Your task to perform on an android device: Search for "usb-c" on ebay.com, select the first entry, and add it to the cart. Image 0: 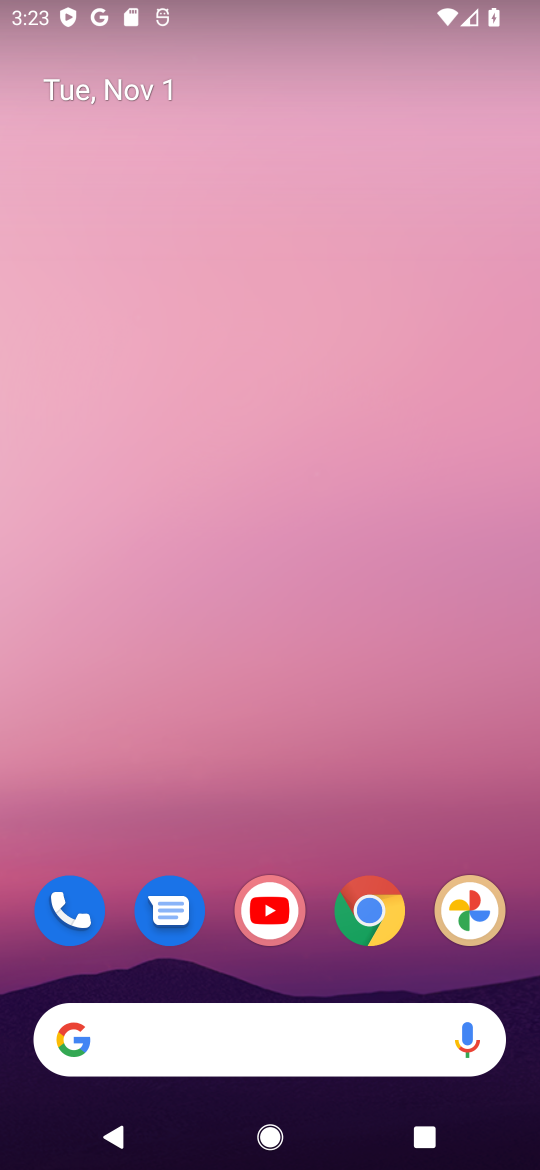
Step 0: click (263, 1051)
Your task to perform on an android device: Search for "usb-c" on ebay.com, select the first entry, and add it to the cart. Image 1: 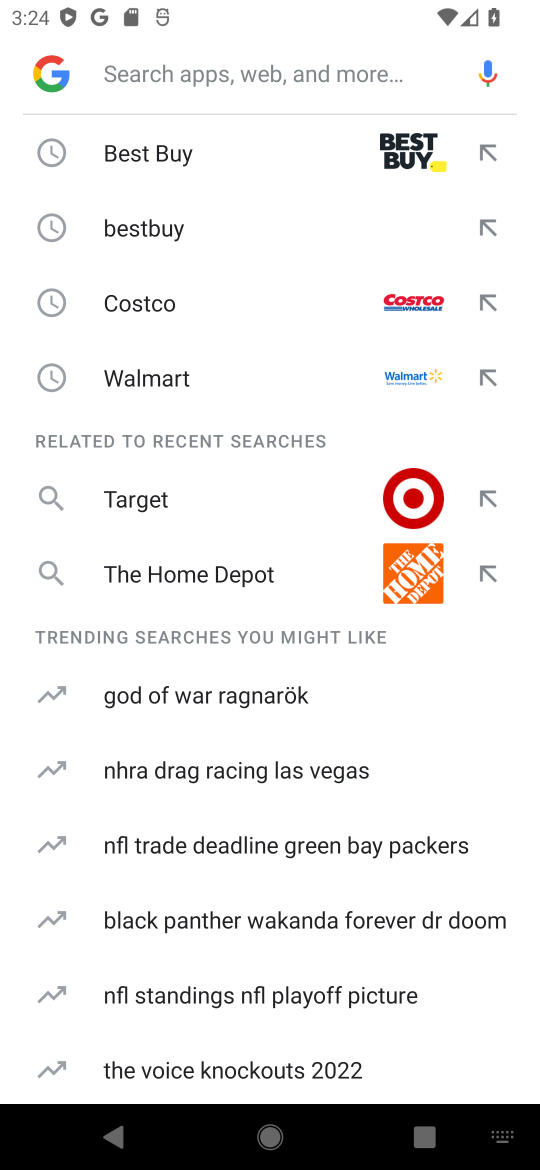
Step 1: type "ebay"
Your task to perform on an android device: Search for "usb-c" on ebay.com, select the first entry, and add it to the cart. Image 2: 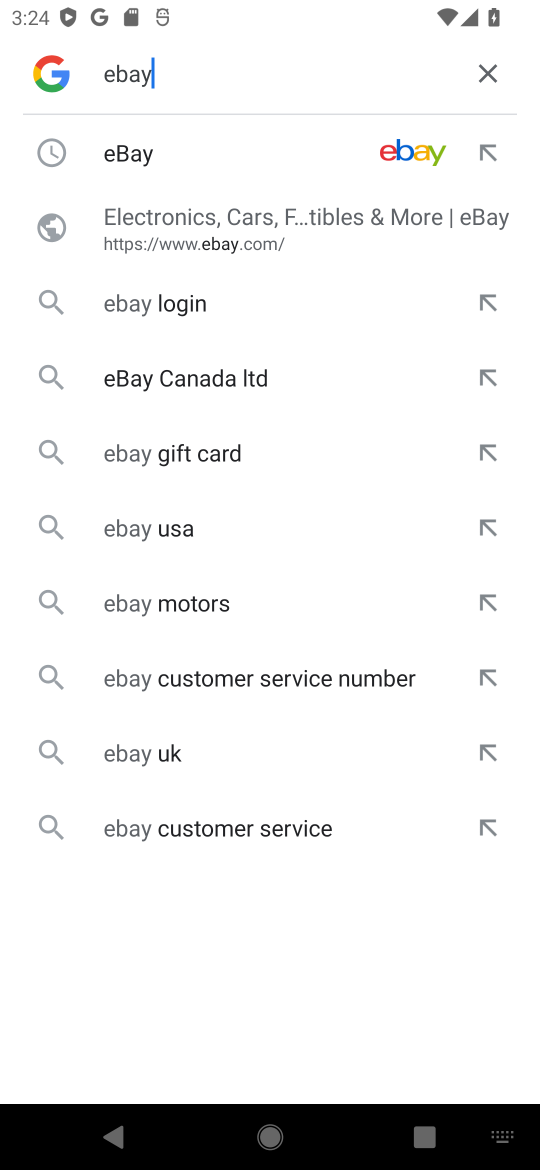
Step 2: click (152, 151)
Your task to perform on an android device: Search for "usb-c" on ebay.com, select the first entry, and add it to the cart. Image 3: 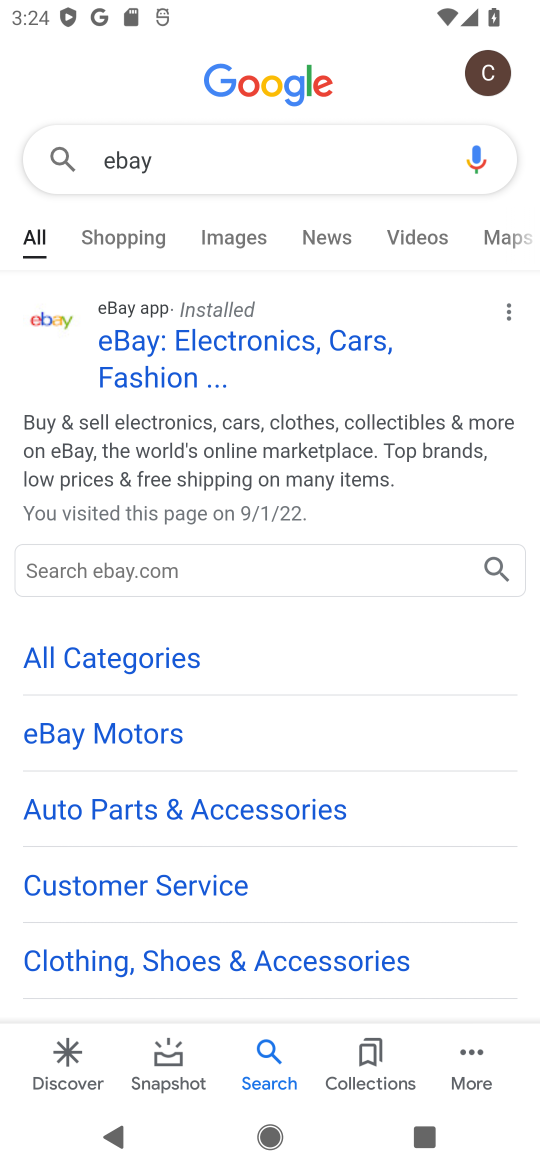
Step 3: click (152, 356)
Your task to perform on an android device: Search for "usb-c" on ebay.com, select the first entry, and add it to the cart. Image 4: 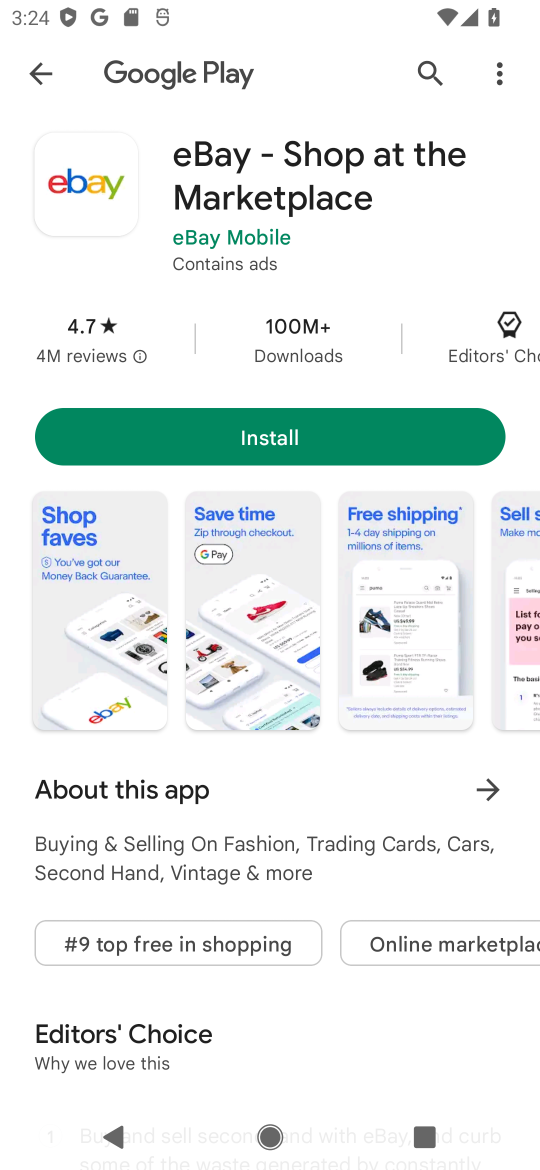
Step 4: click (53, 77)
Your task to perform on an android device: Search for "usb-c" on ebay.com, select the first entry, and add it to the cart. Image 5: 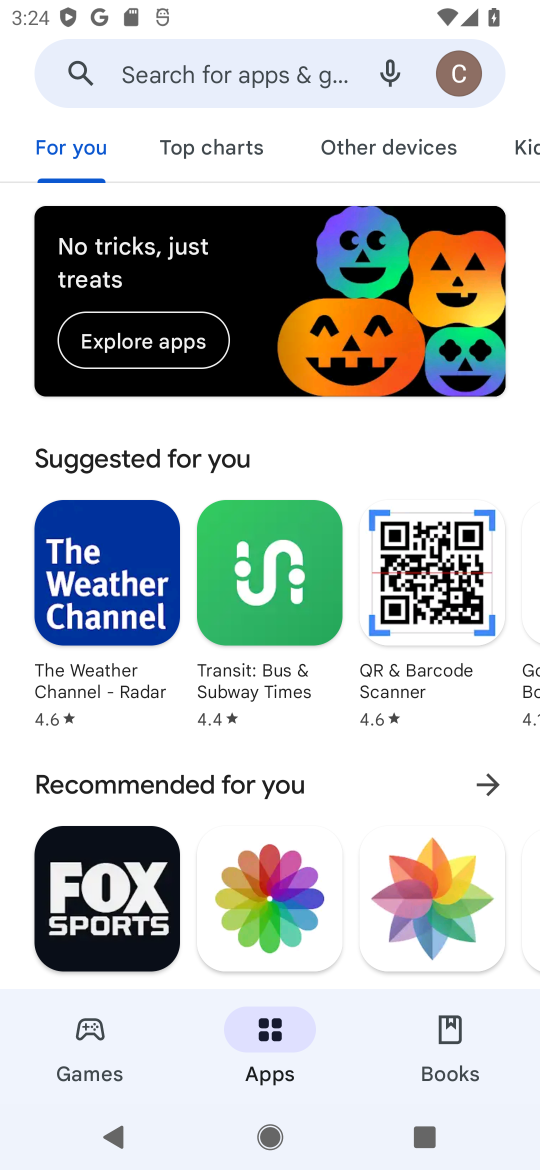
Step 5: click (207, 79)
Your task to perform on an android device: Search for "usb-c" on ebay.com, select the first entry, and add it to the cart. Image 6: 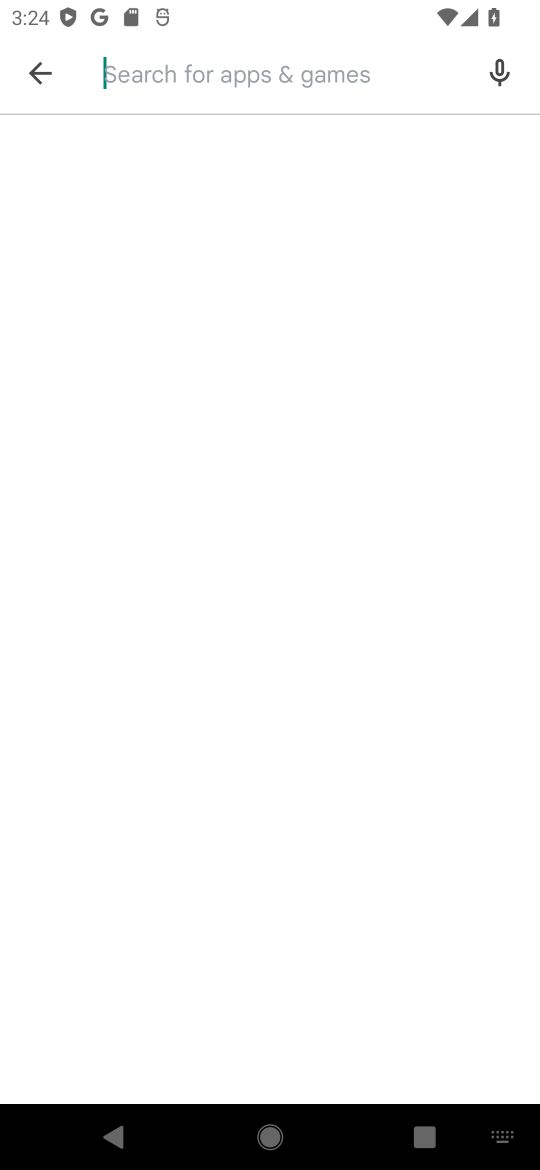
Step 6: type "ebay.com"
Your task to perform on an android device: Search for "usb-c" on ebay.com, select the first entry, and add it to the cart. Image 7: 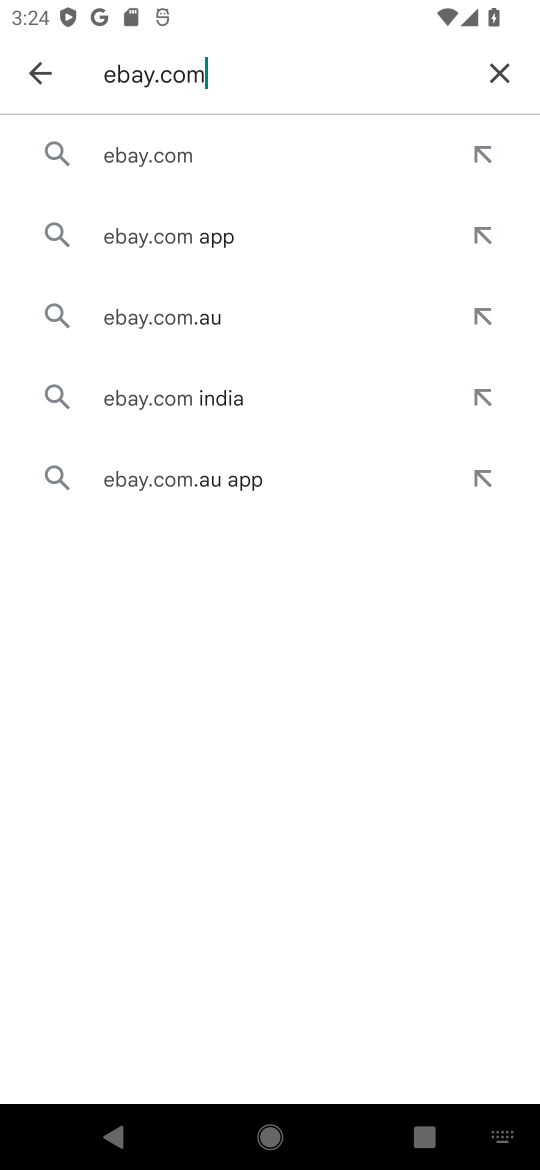
Step 7: click (113, 162)
Your task to perform on an android device: Search for "usb-c" on ebay.com, select the first entry, and add it to the cart. Image 8: 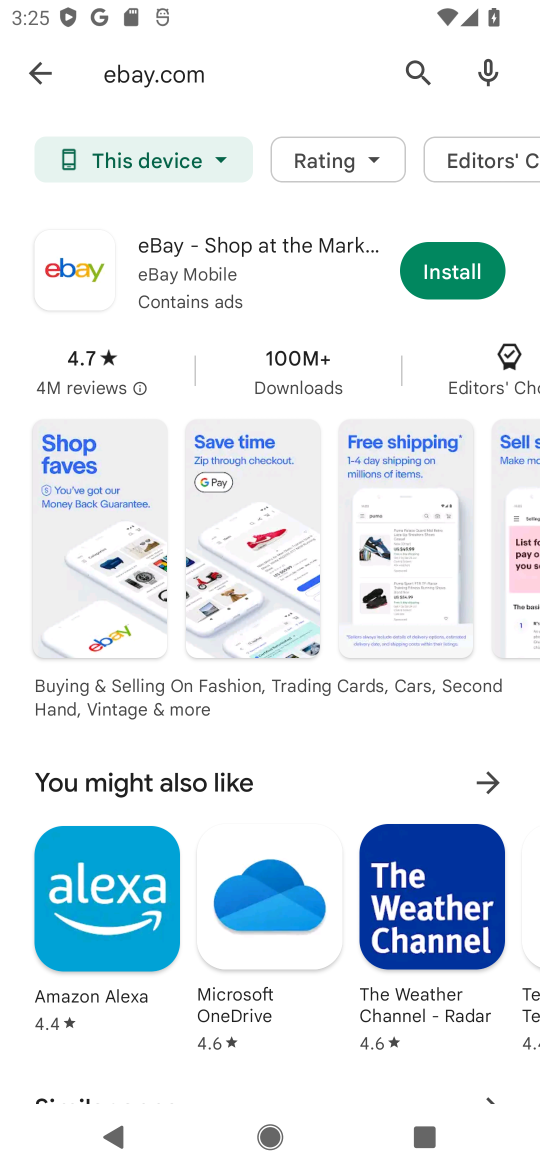
Step 8: click (426, 281)
Your task to perform on an android device: Search for "usb-c" on ebay.com, select the first entry, and add it to the cart. Image 9: 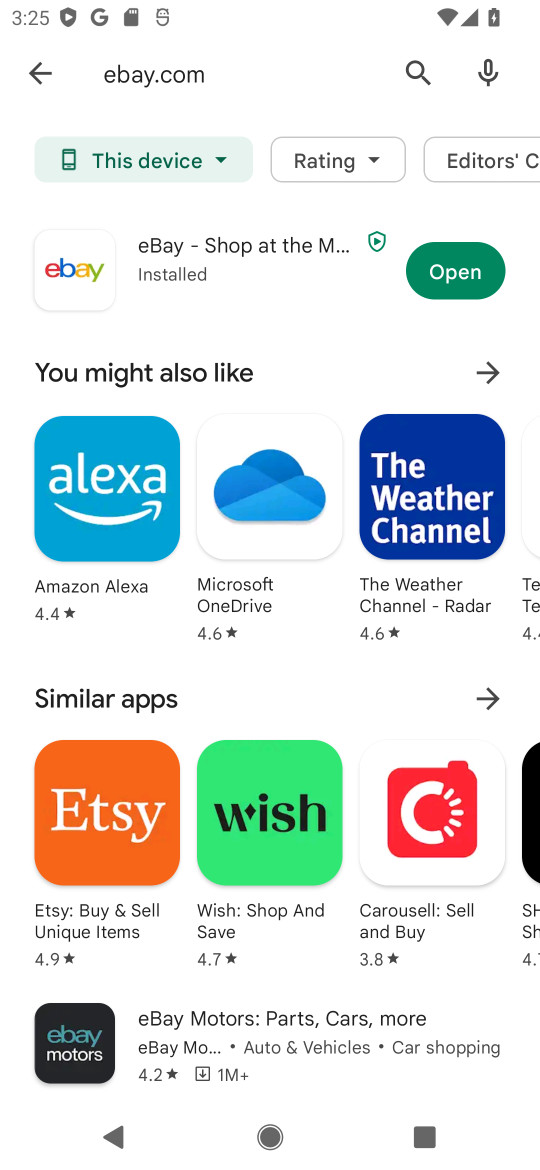
Step 9: click (451, 279)
Your task to perform on an android device: Search for "usb-c" on ebay.com, select the first entry, and add it to the cart. Image 10: 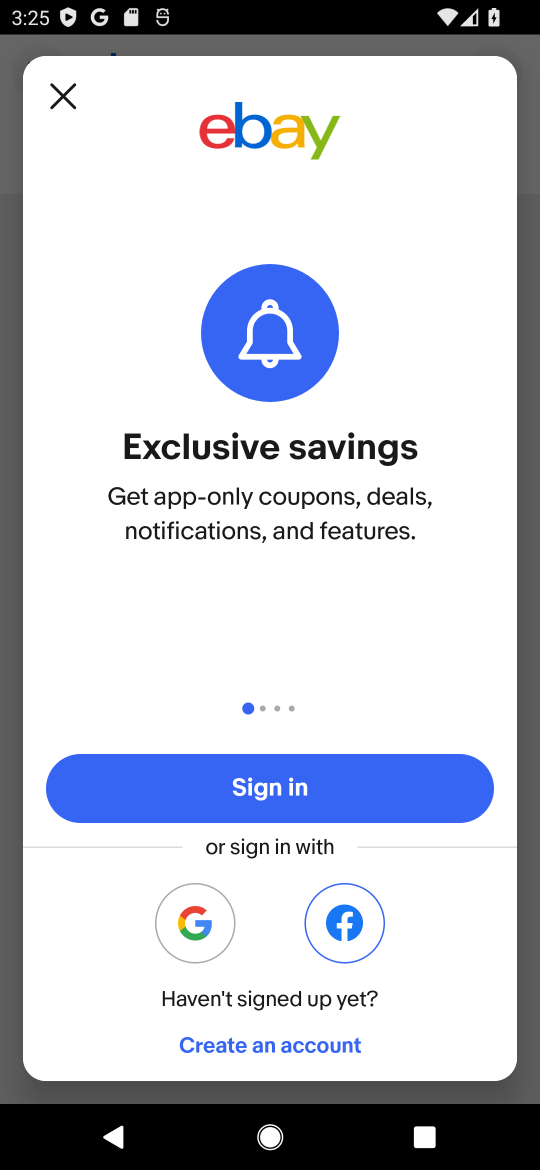
Step 10: task complete